Your task to perform on an android device: uninstall "Venmo" Image 0: 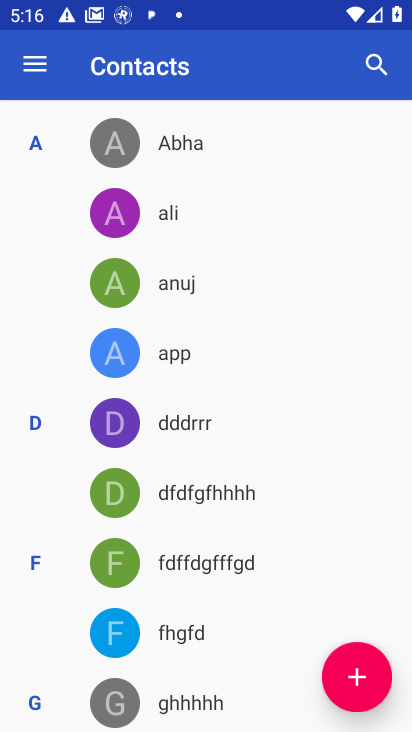
Step 0: press home button
Your task to perform on an android device: uninstall "Venmo" Image 1: 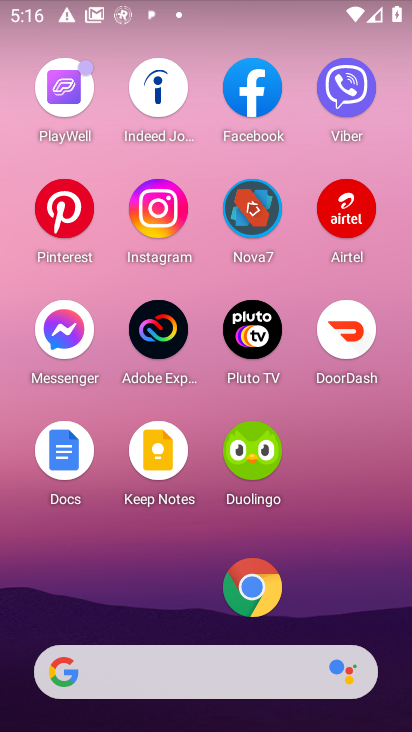
Step 1: drag from (152, 603) to (161, 112)
Your task to perform on an android device: uninstall "Venmo" Image 2: 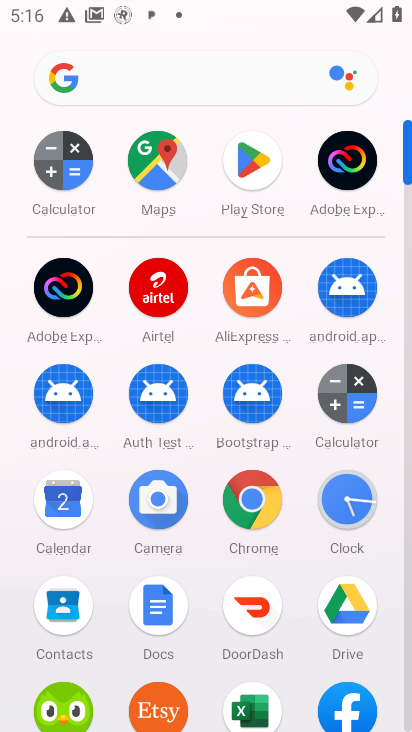
Step 2: click (246, 183)
Your task to perform on an android device: uninstall "Venmo" Image 3: 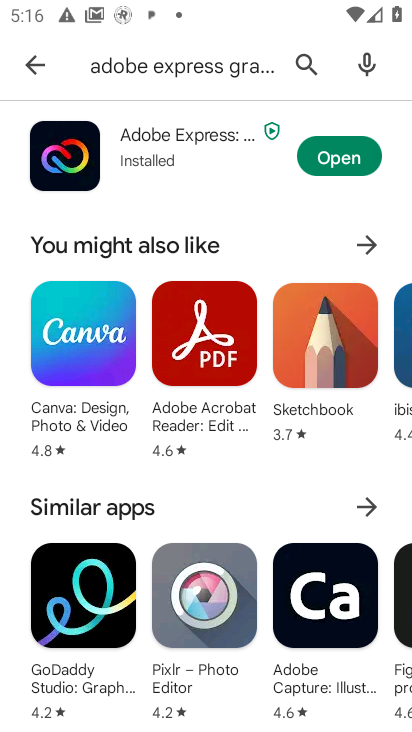
Step 3: click (298, 57)
Your task to perform on an android device: uninstall "Venmo" Image 4: 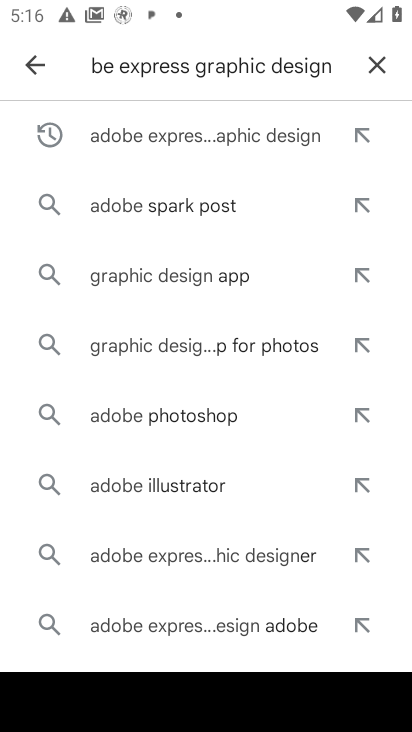
Step 4: click (374, 67)
Your task to perform on an android device: uninstall "Venmo" Image 5: 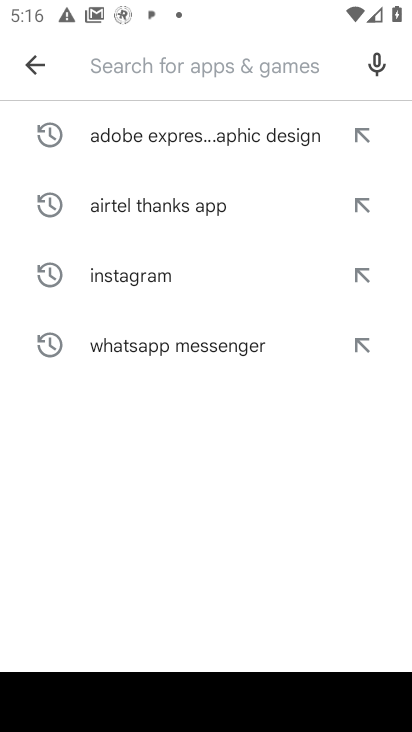
Step 5: type "Venmo"
Your task to perform on an android device: uninstall "Venmo" Image 6: 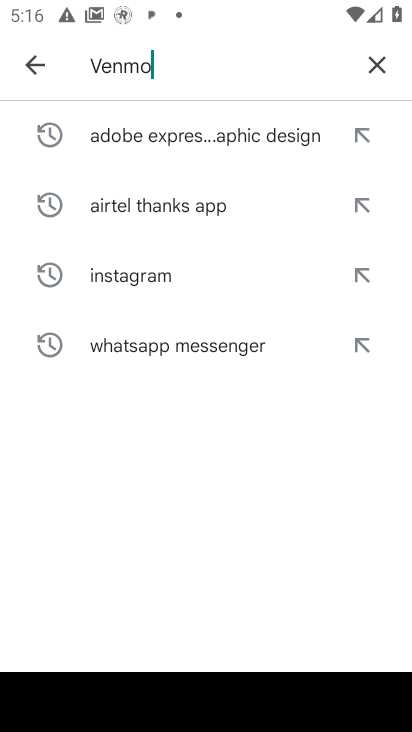
Step 6: type ""
Your task to perform on an android device: uninstall "Venmo" Image 7: 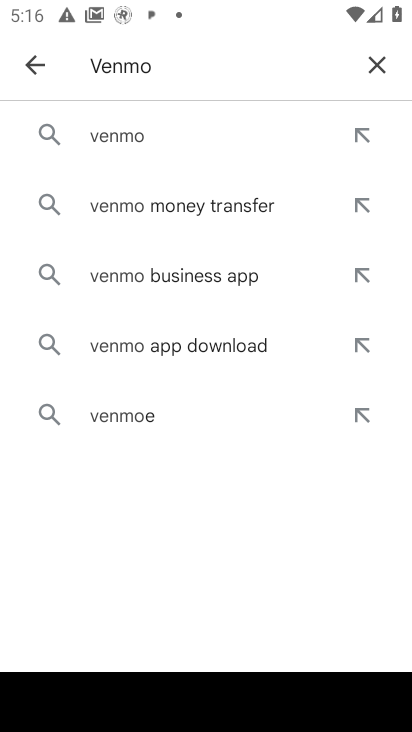
Step 7: click (139, 136)
Your task to perform on an android device: uninstall "Venmo" Image 8: 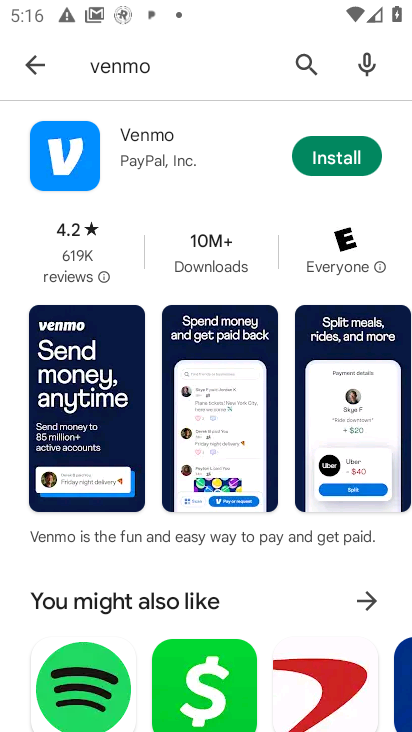
Step 8: task complete